Your task to perform on an android device: toggle pop-ups in chrome Image 0: 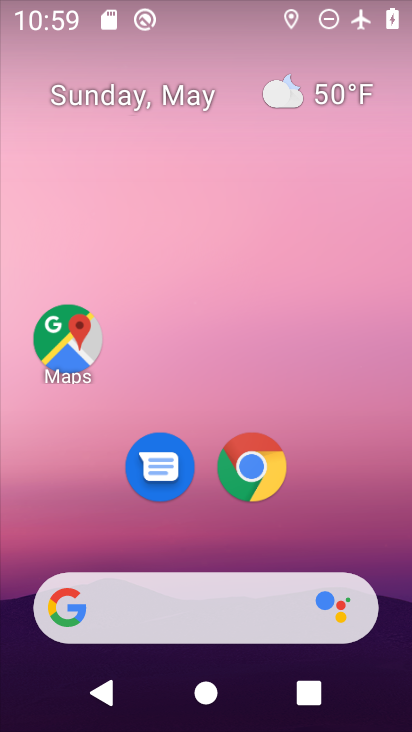
Step 0: click (239, 471)
Your task to perform on an android device: toggle pop-ups in chrome Image 1: 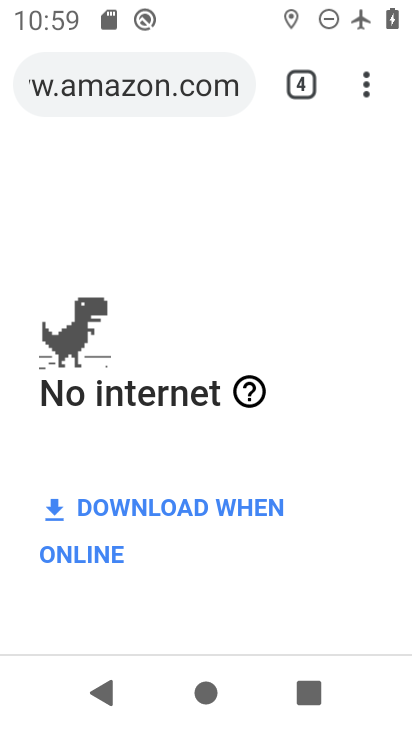
Step 1: click (366, 85)
Your task to perform on an android device: toggle pop-ups in chrome Image 2: 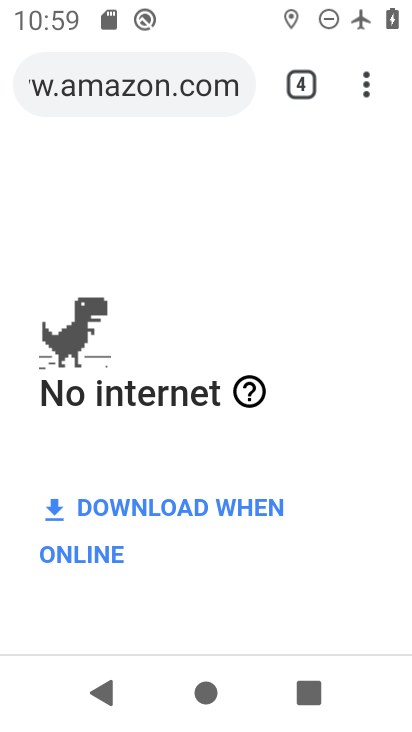
Step 2: drag from (364, 91) to (146, 524)
Your task to perform on an android device: toggle pop-ups in chrome Image 3: 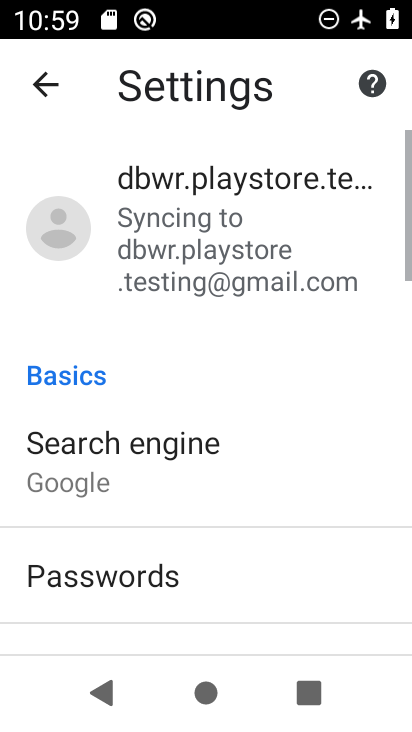
Step 3: click (222, 190)
Your task to perform on an android device: toggle pop-ups in chrome Image 4: 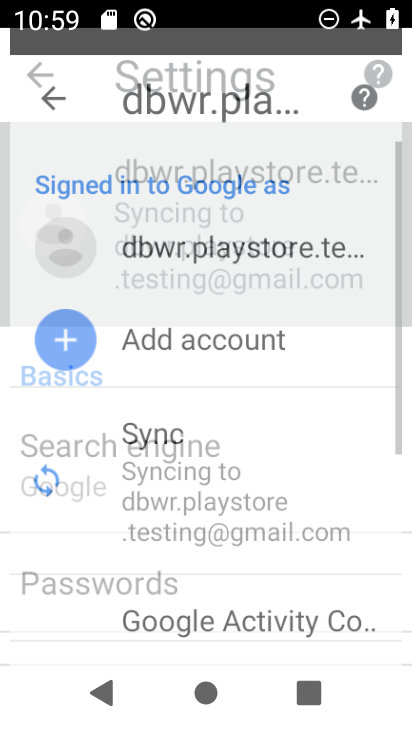
Step 4: drag from (252, 522) to (258, 252)
Your task to perform on an android device: toggle pop-ups in chrome Image 5: 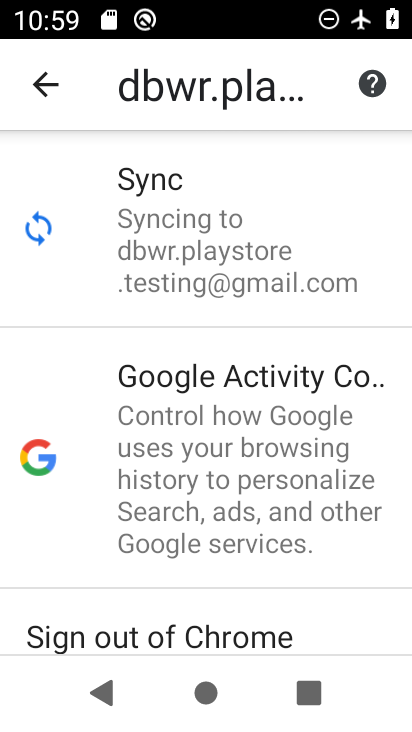
Step 5: click (64, 74)
Your task to perform on an android device: toggle pop-ups in chrome Image 6: 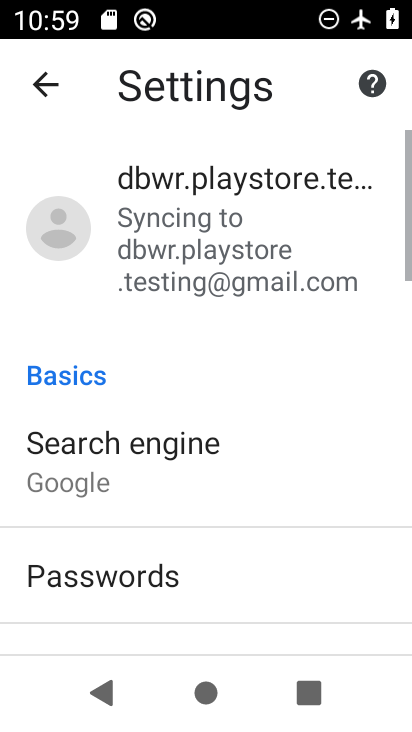
Step 6: drag from (224, 578) to (235, 242)
Your task to perform on an android device: toggle pop-ups in chrome Image 7: 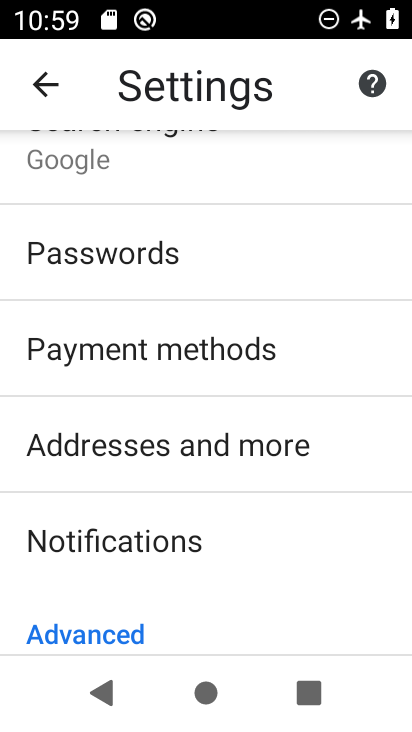
Step 7: drag from (217, 556) to (239, 285)
Your task to perform on an android device: toggle pop-ups in chrome Image 8: 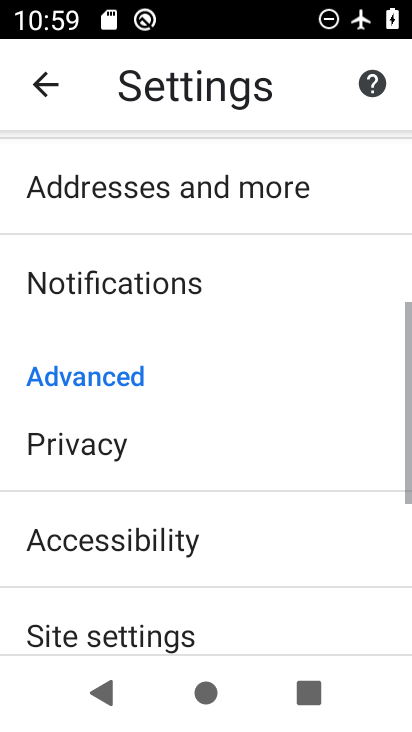
Step 8: drag from (190, 555) to (213, 316)
Your task to perform on an android device: toggle pop-ups in chrome Image 9: 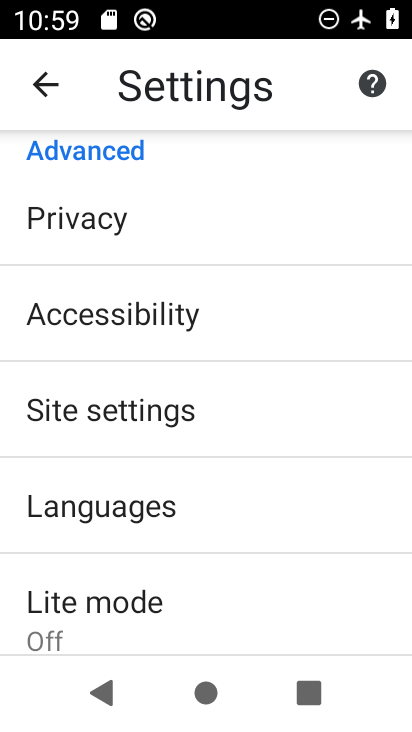
Step 9: click (183, 389)
Your task to perform on an android device: toggle pop-ups in chrome Image 10: 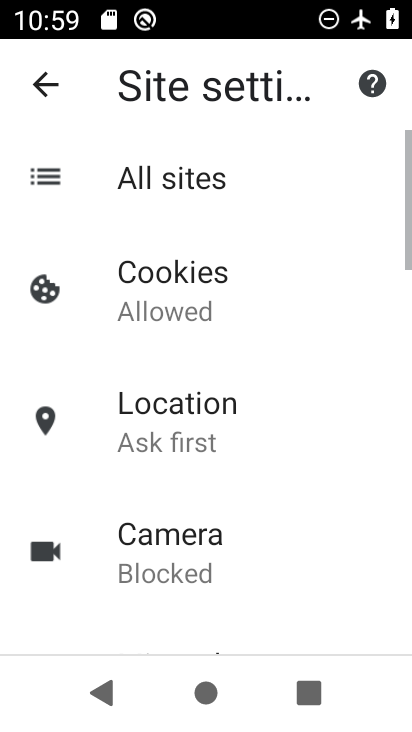
Step 10: drag from (225, 430) to (234, 292)
Your task to perform on an android device: toggle pop-ups in chrome Image 11: 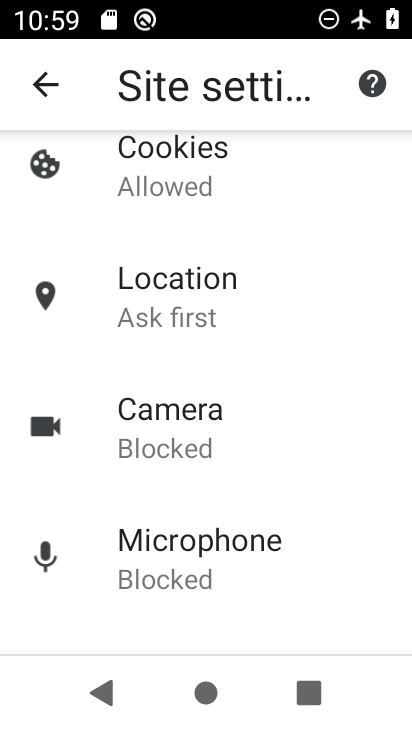
Step 11: drag from (234, 292) to (235, 518)
Your task to perform on an android device: toggle pop-ups in chrome Image 12: 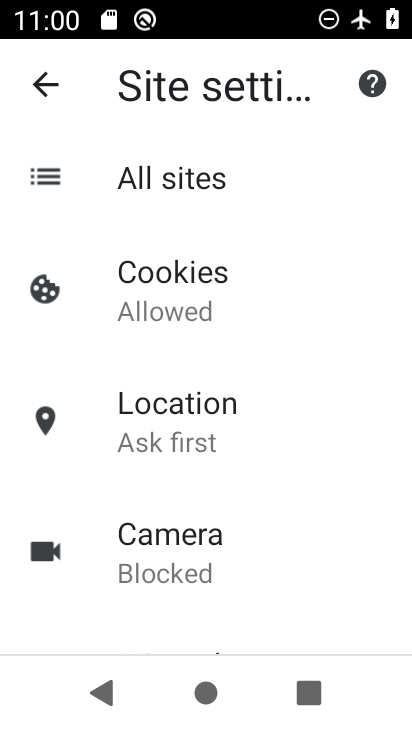
Step 12: drag from (201, 533) to (233, 175)
Your task to perform on an android device: toggle pop-ups in chrome Image 13: 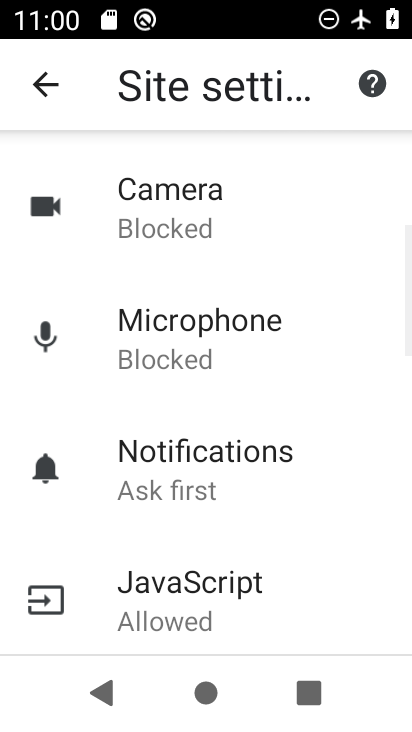
Step 13: drag from (206, 529) to (237, 257)
Your task to perform on an android device: toggle pop-ups in chrome Image 14: 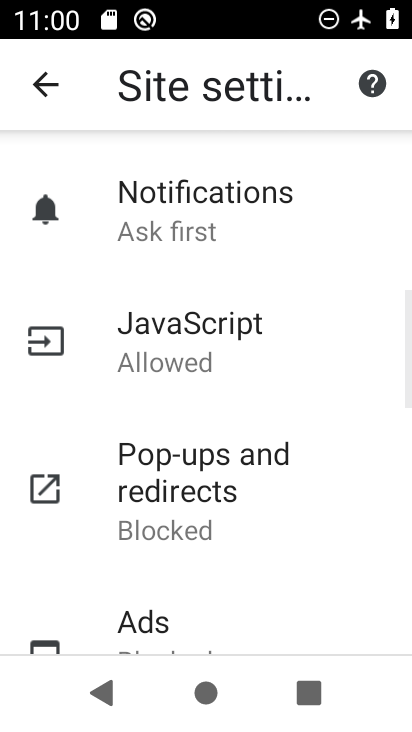
Step 14: click (210, 489)
Your task to perform on an android device: toggle pop-ups in chrome Image 15: 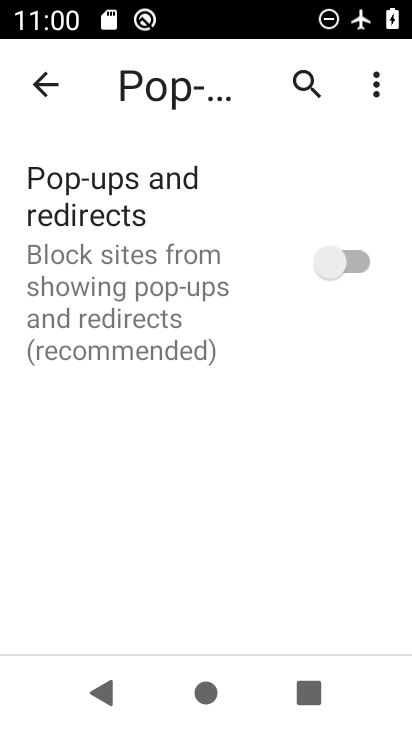
Step 15: click (362, 254)
Your task to perform on an android device: toggle pop-ups in chrome Image 16: 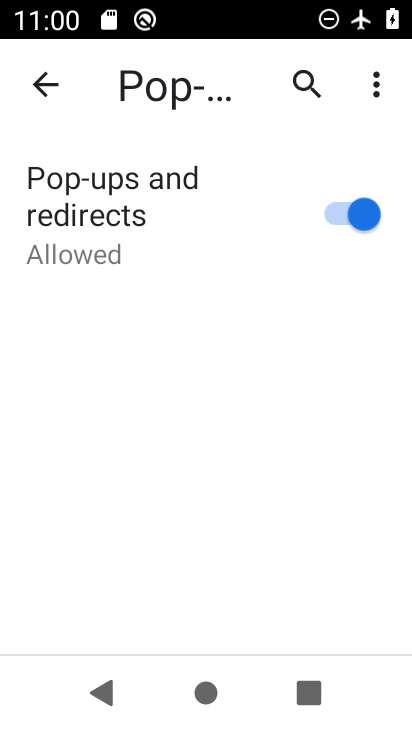
Step 16: task complete